Your task to perform on an android device: turn on data saver in the chrome app Image 0: 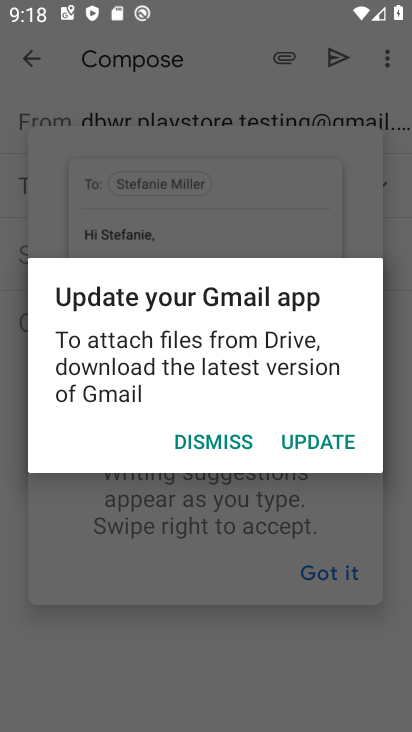
Step 0: press home button
Your task to perform on an android device: turn on data saver in the chrome app Image 1: 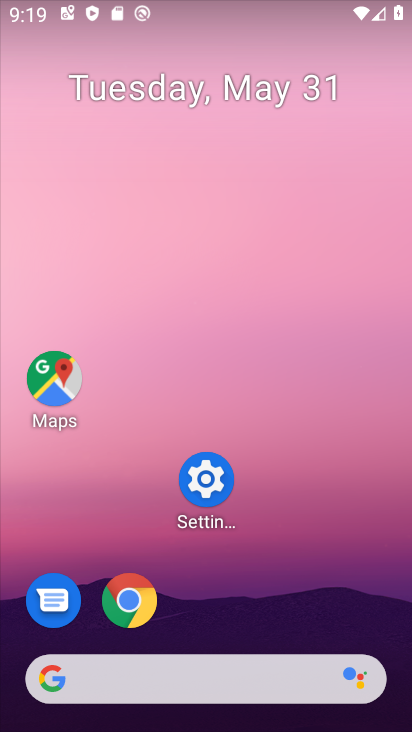
Step 1: click (115, 602)
Your task to perform on an android device: turn on data saver in the chrome app Image 2: 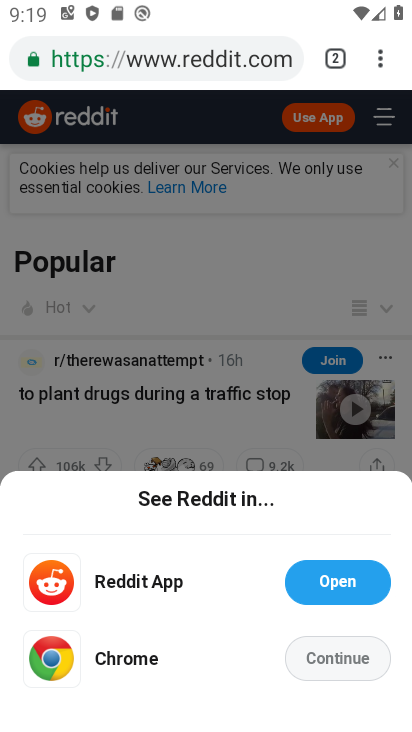
Step 2: click (376, 63)
Your task to perform on an android device: turn on data saver in the chrome app Image 3: 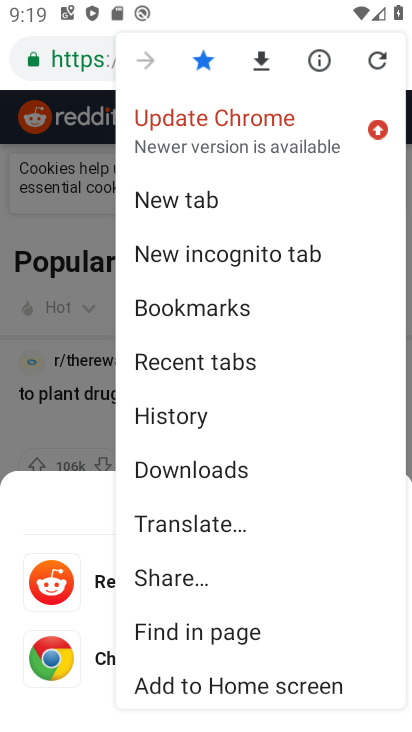
Step 3: drag from (233, 604) to (266, 378)
Your task to perform on an android device: turn on data saver in the chrome app Image 4: 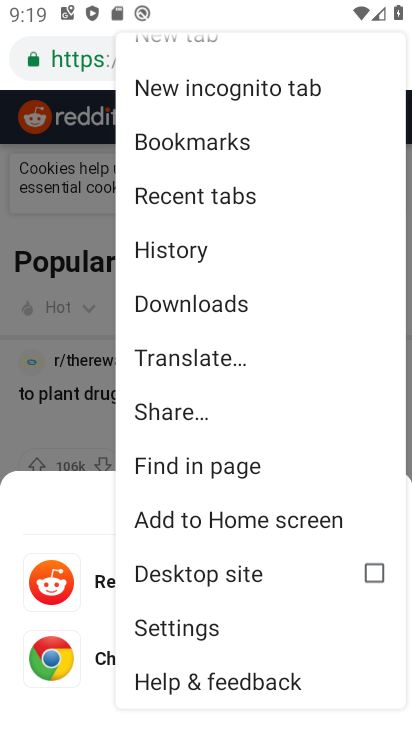
Step 4: click (184, 627)
Your task to perform on an android device: turn on data saver in the chrome app Image 5: 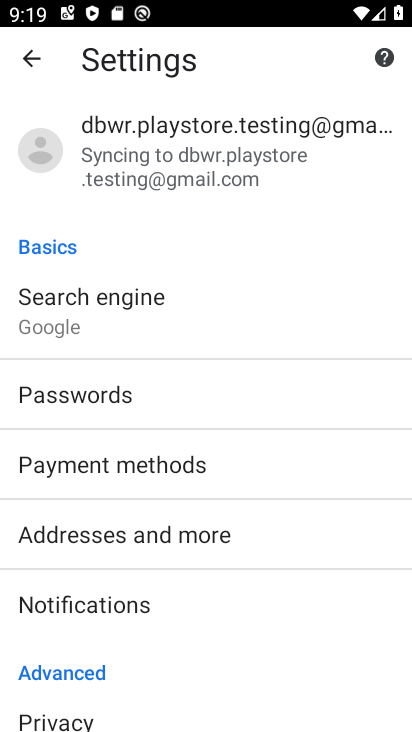
Step 5: drag from (184, 627) to (227, 323)
Your task to perform on an android device: turn on data saver in the chrome app Image 6: 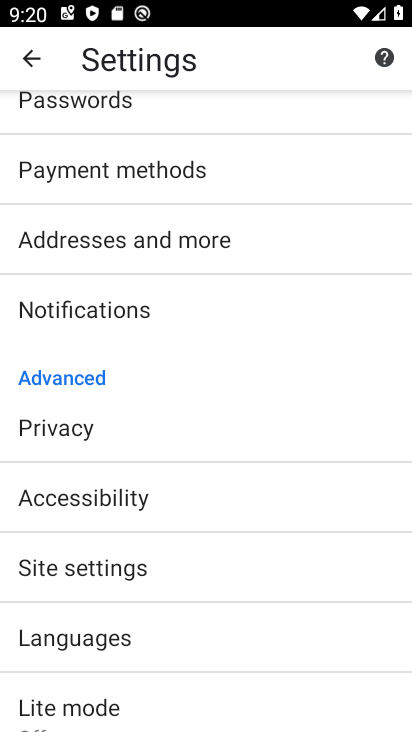
Step 6: click (96, 717)
Your task to perform on an android device: turn on data saver in the chrome app Image 7: 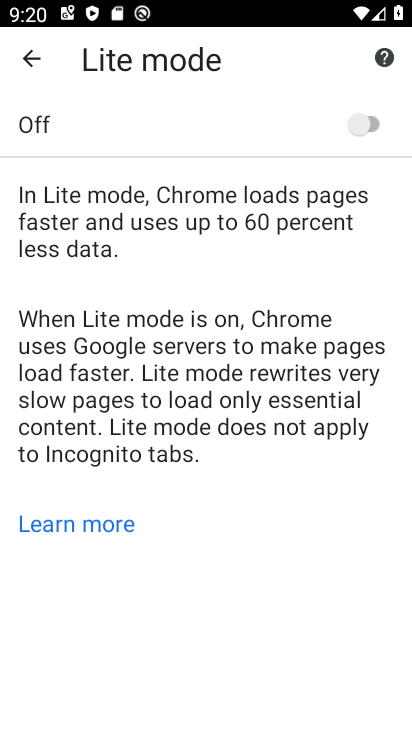
Step 7: click (373, 127)
Your task to perform on an android device: turn on data saver in the chrome app Image 8: 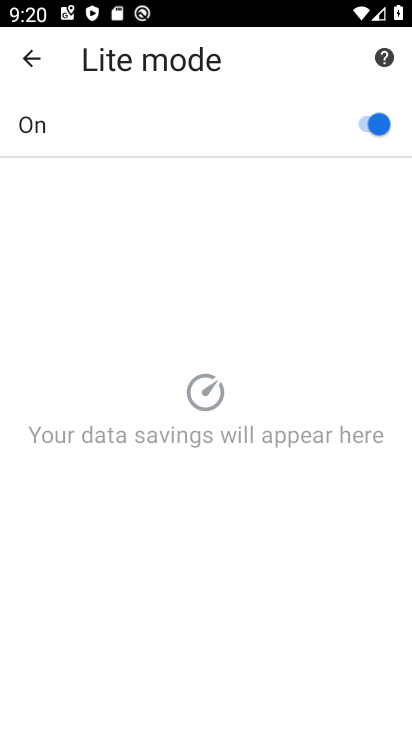
Step 8: task complete